Your task to perform on an android device: turn on bluetooth scan Image 0: 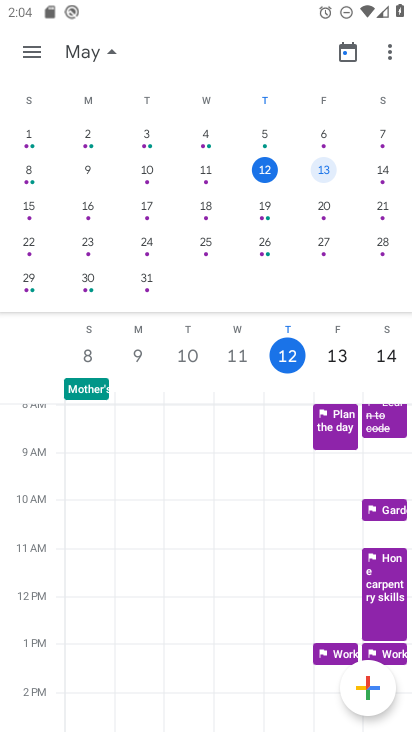
Step 0: press home button
Your task to perform on an android device: turn on bluetooth scan Image 1: 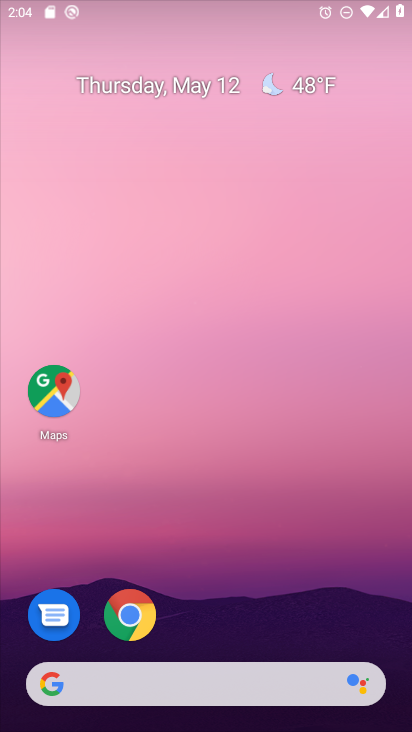
Step 1: drag from (249, 679) to (314, 71)
Your task to perform on an android device: turn on bluetooth scan Image 2: 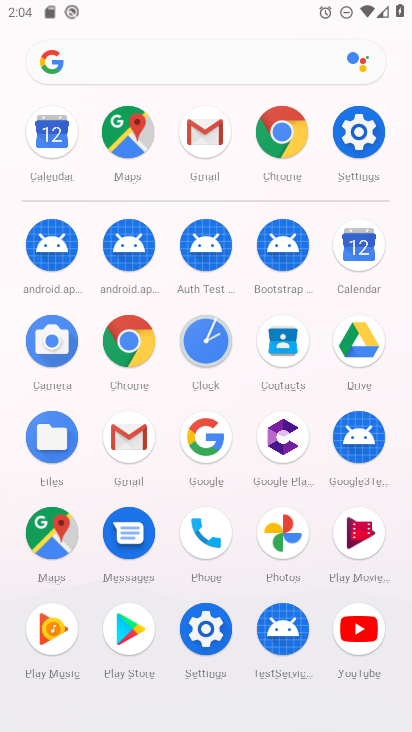
Step 2: click (353, 140)
Your task to perform on an android device: turn on bluetooth scan Image 3: 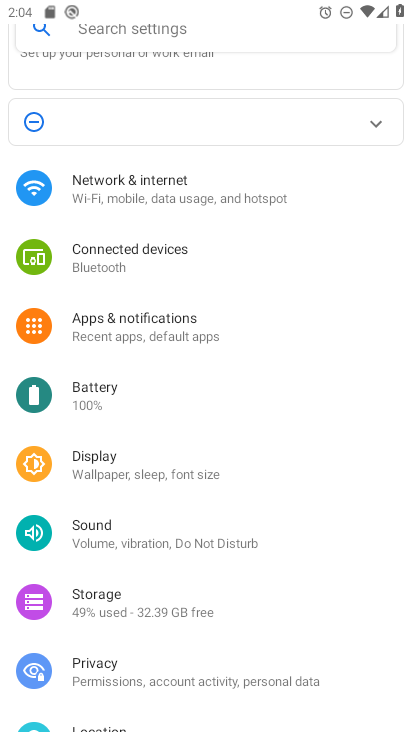
Step 3: drag from (221, 659) to (242, 196)
Your task to perform on an android device: turn on bluetooth scan Image 4: 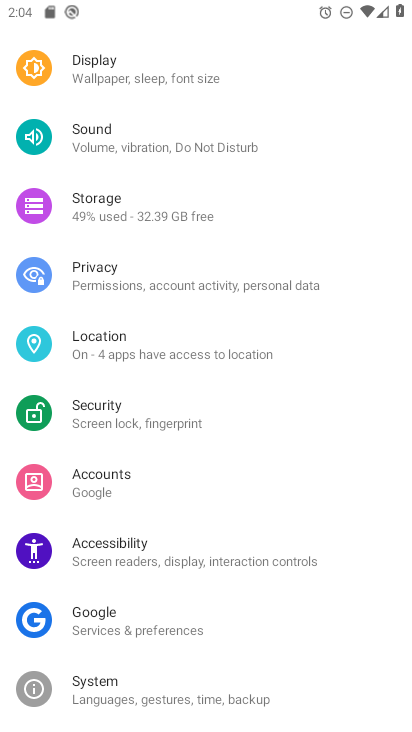
Step 4: click (199, 342)
Your task to perform on an android device: turn on bluetooth scan Image 5: 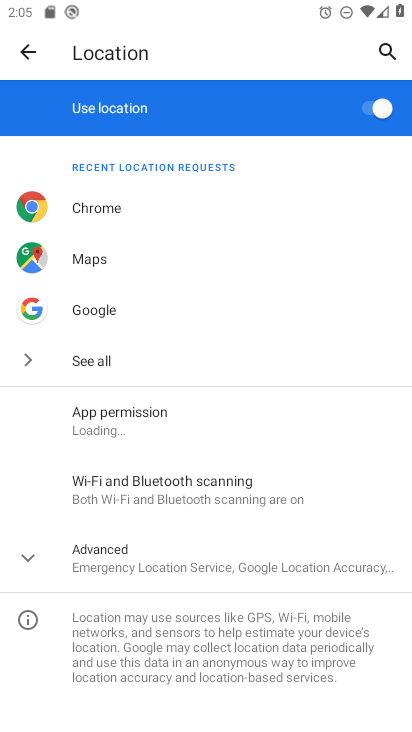
Step 5: click (251, 484)
Your task to perform on an android device: turn on bluetooth scan Image 6: 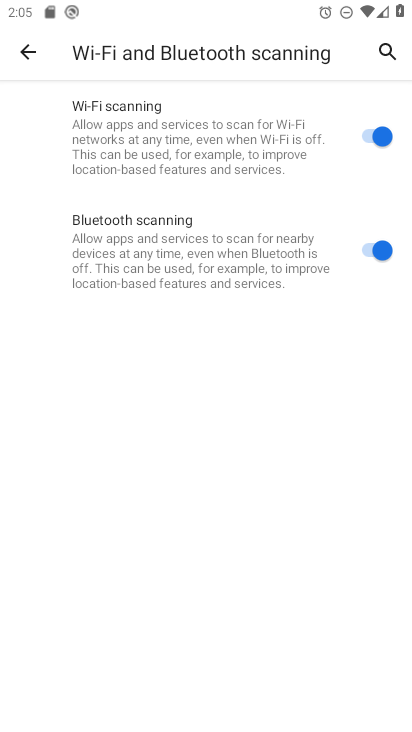
Step 6: task complete